Your task to perform on an android device: Open Yahoo.com Image 0: 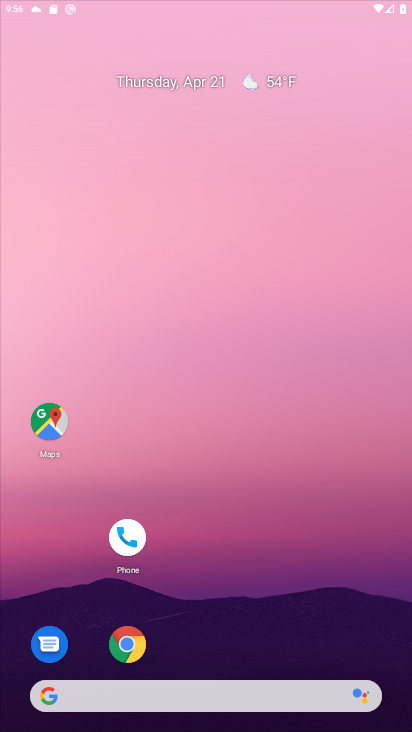
Step 0: click (254, 596)
Your task to perform on an android device: Open Yahoo.com Image 1: 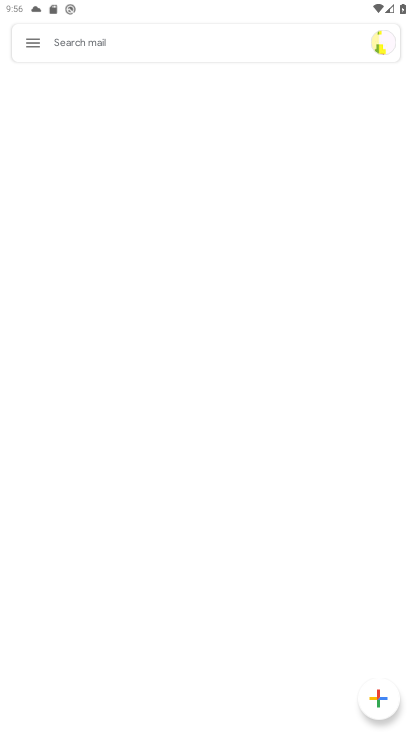
Step 1: press home button
Your task to perform on an android device: Open Yahoo.com Image 2: 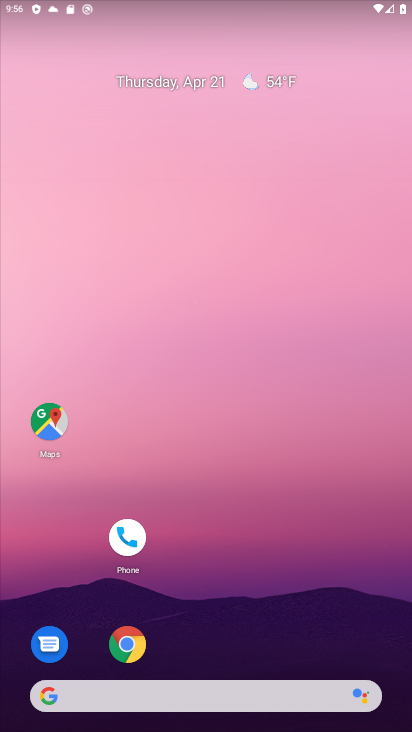
Step 2: drag from (243, 609) to (249, 110)
Your task to perform on an android device: Open Yahoo.com Image 3: 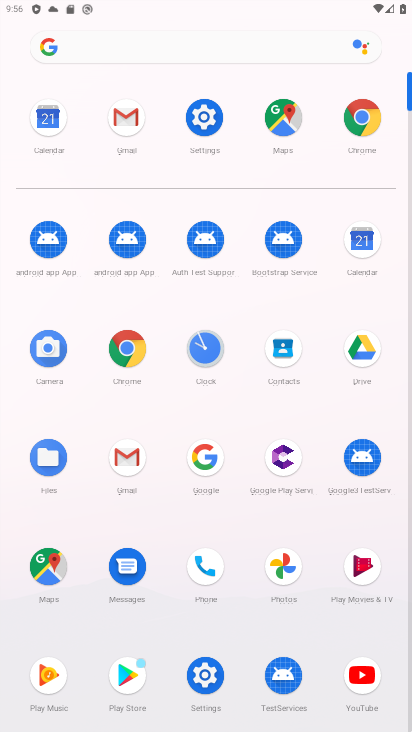
Step 3: click (127, 348)
Your task to perform on an android device: Open Yahoo.com Image 4: 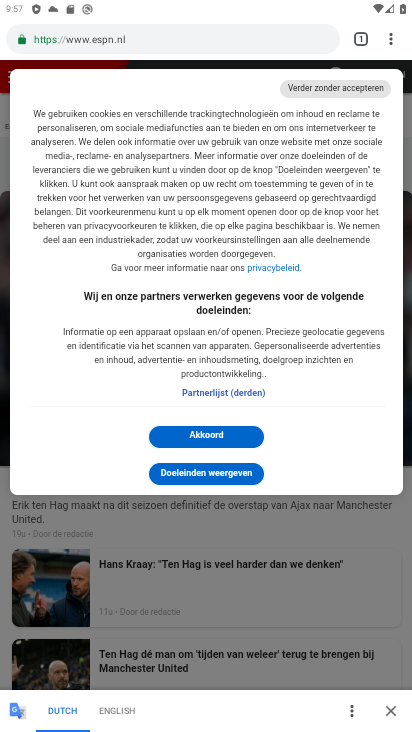
Step 4: click (205, 44)
Your task to perform on an android device: Open Yahoo.com Image 5: 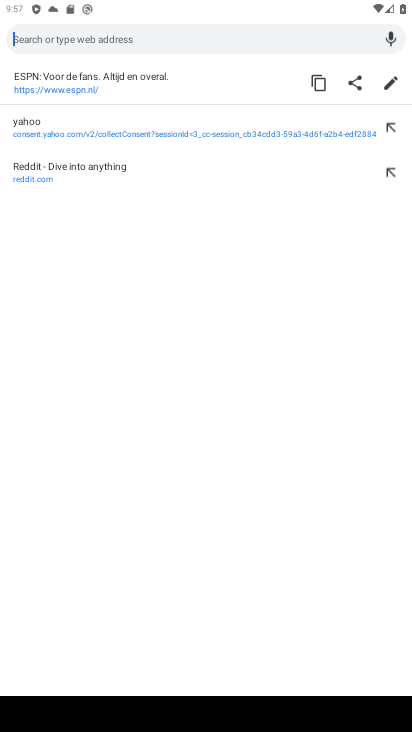
Step 5: type "yahoo.com"
Your task to perform on an android device: Open Yahoo.com Image 6: 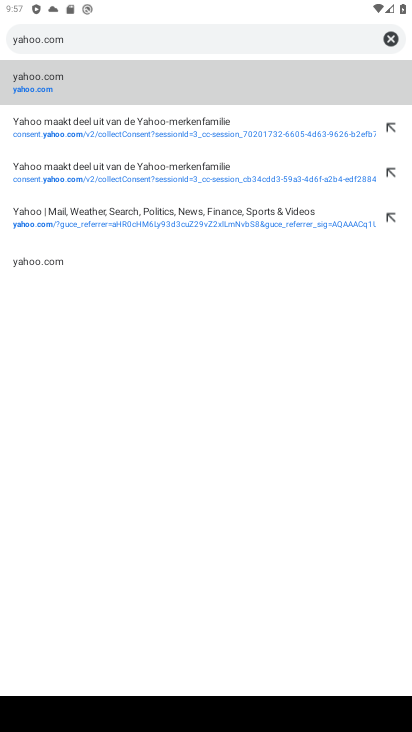
Step 6: click (37, 88)
Your task to perform on an android device: Open Yahoo.com Image 7: 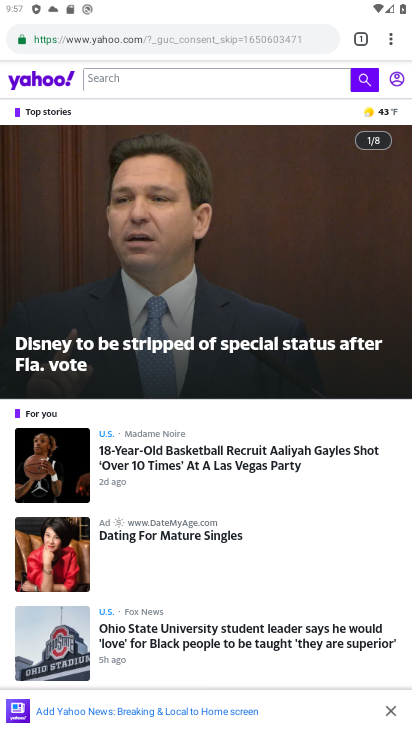
Step 7: task complete